Your task to perform on an android device: Open Youtube and go to "Your channel" Image 0: 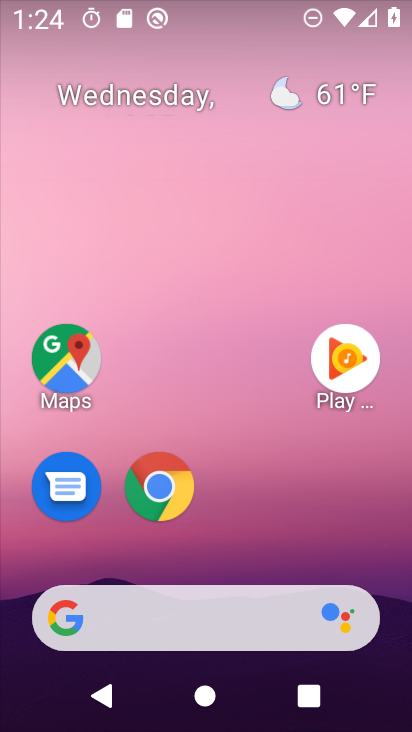
Step 0: press home button
Your task to perform on an android device: Open Youtube and go to "Your channel" Image 1: 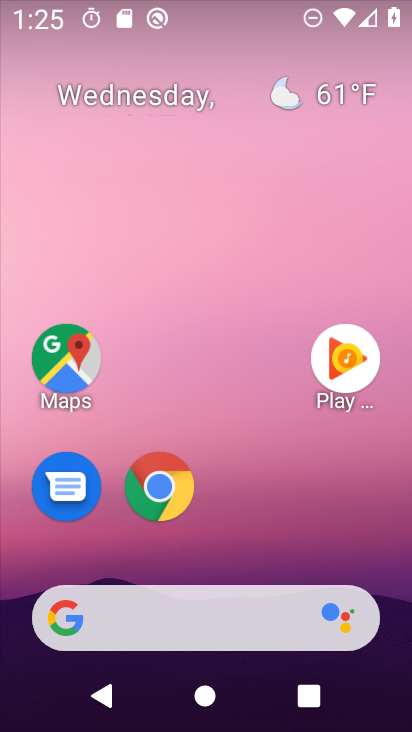
Step 1: drag from (298, 528) to (333, 96)
Your task to perform on an android device: Open Youtube and go to "Your channel" Image 2: 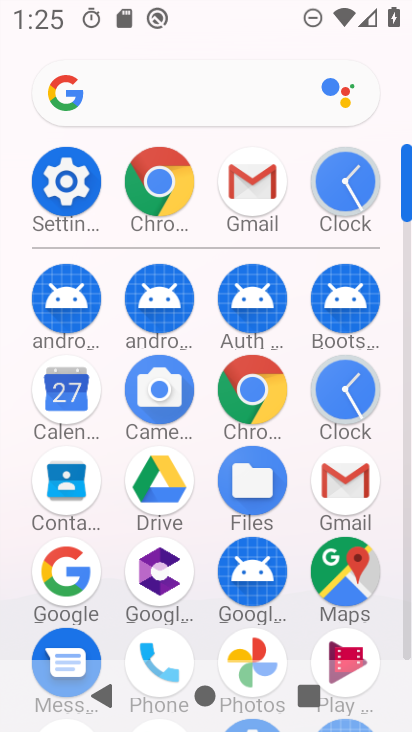
Step 2: drag from (390, 547) to (396, 450)
Your task to perform on an android device: Open Youtube and go to "Your channel" Image 3: 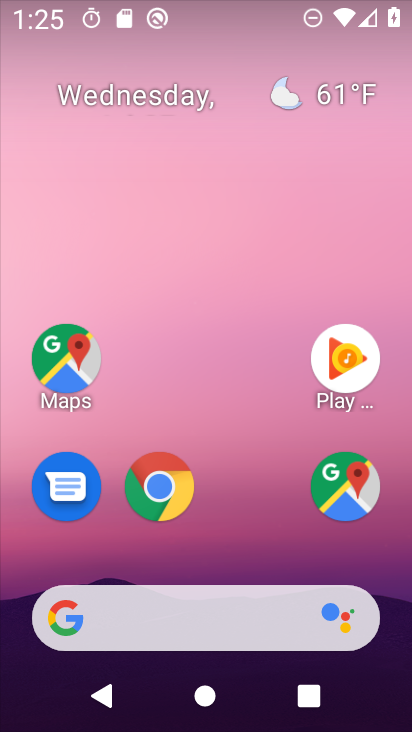
Step 3: drag from (244, 543) to (276, 193)
Your task to perform on an android device: Open Youtube and go to "Your channel" Image 4: 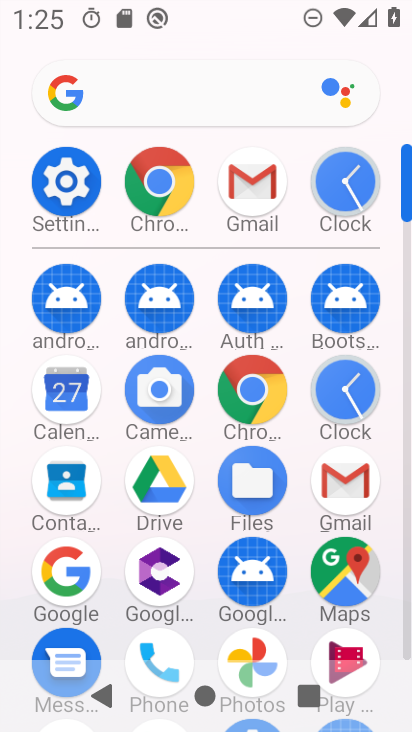
Step 4: drag from (399, 491) to (400, 188)
Your task to perform on an android device: Open Youtube and go to "Your channel" Image 5: 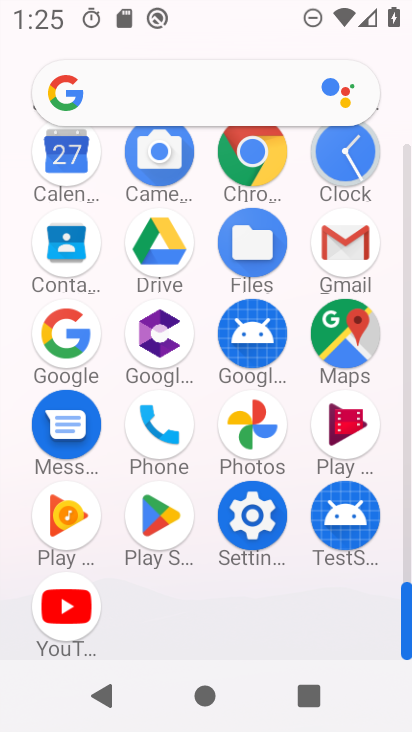
Step 5: click (71, 619)
Your task to perform on an android device: Open Youtube and go to "Your channel" Image 6: 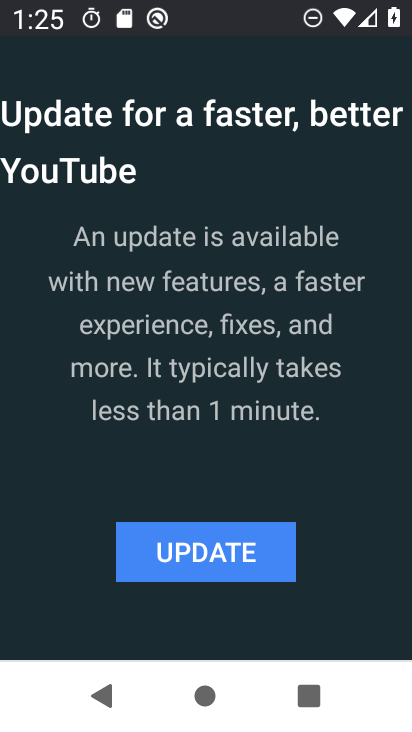
Step 6: click (174, 565)
Your task to perform on an android device: Open Youtube and go to "Your channel" Image 7: 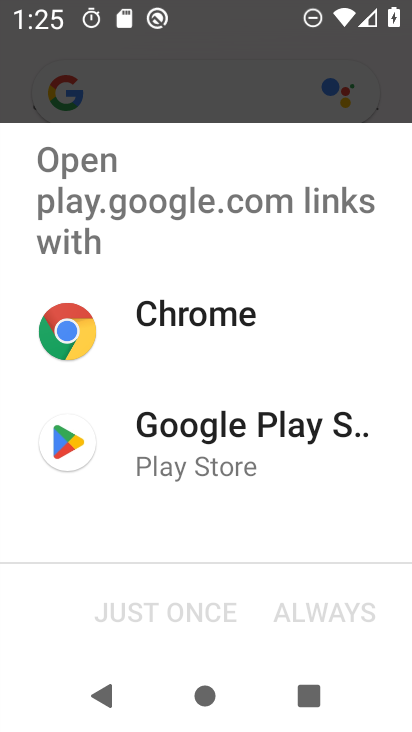
Step 7: click (180, 466)
Your task to perform on an android device: Open Youtube and go to "Your channel" Image 8: 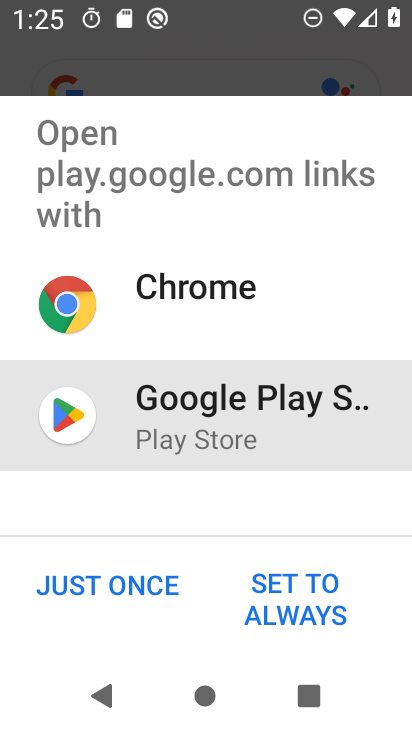
Step 8: click (127, 586)
Your task to perform on an android device: Open Youtube and go to "Your channel" Image 9: 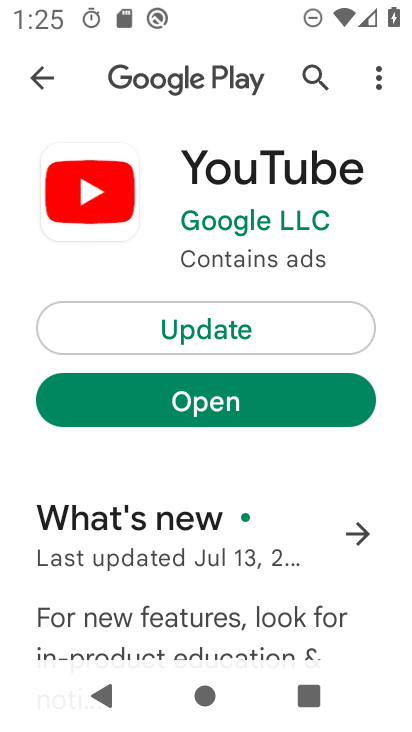
Step 9: click (238, 330)
Your task to perform on an android device: Open Youtube and go to "Your channel" Image 10: 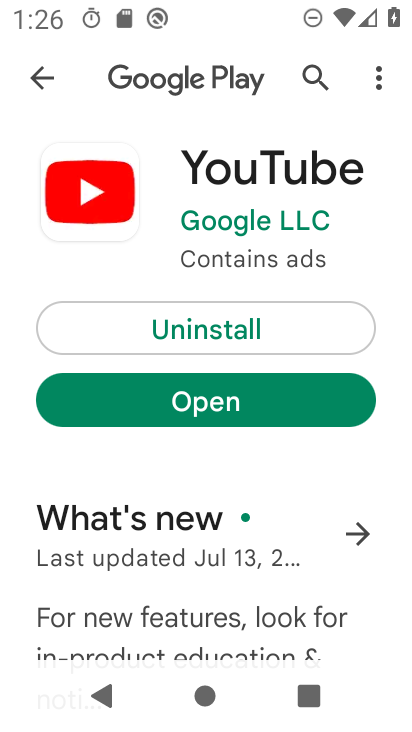
Step 10: click (350, 397)
Your task to perform on an android device: Open Youtube and go to "Your channel" Image 11: 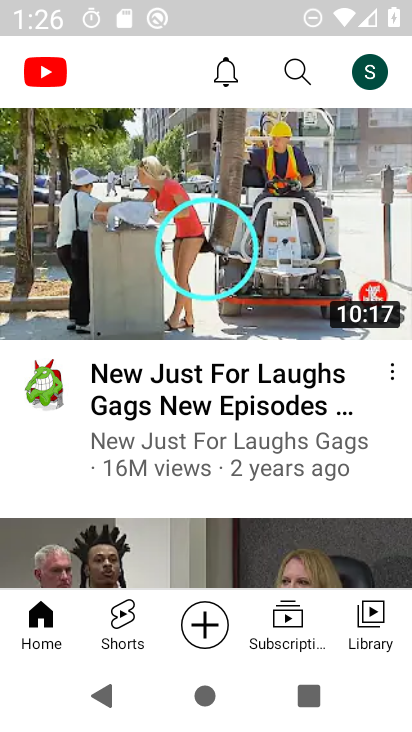
Step 11: click (370, 69)
Your task to perform on an android device: Open Youtube and go to "Your channel" Image 12: 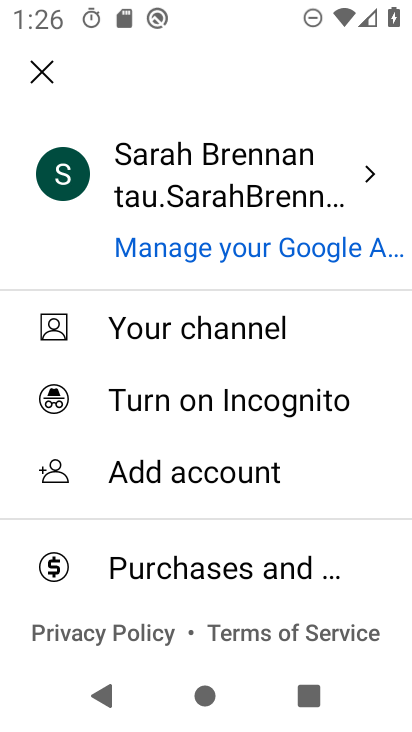
Step 12: click (265, 337)
Your task to perform on an android device: Open Youtube and go to "Your channel" Image 13: 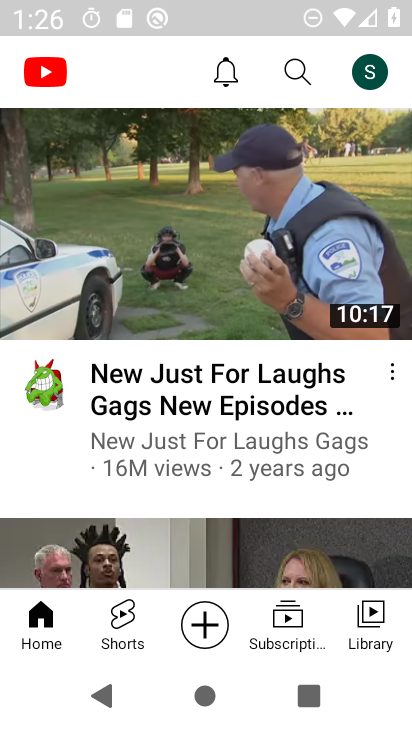
Step 13: task complete